Your task to perform on an android device: turn off location history Image 0: 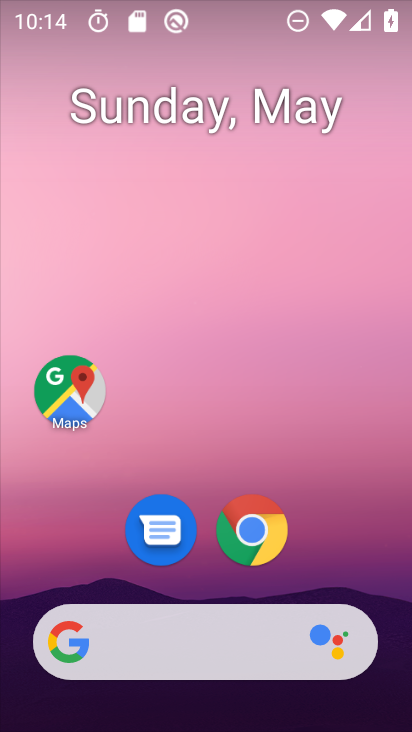
Step 0: drag from (262, 696) to (197, 112)
Your task to perform on an android device: turn off location history Image 1: 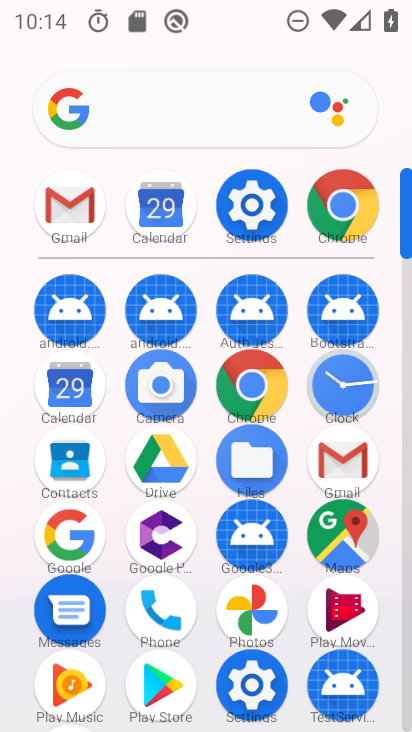
Step 1: click (260, 200)
Your task to perform on an android device: turn off location history Image 2: 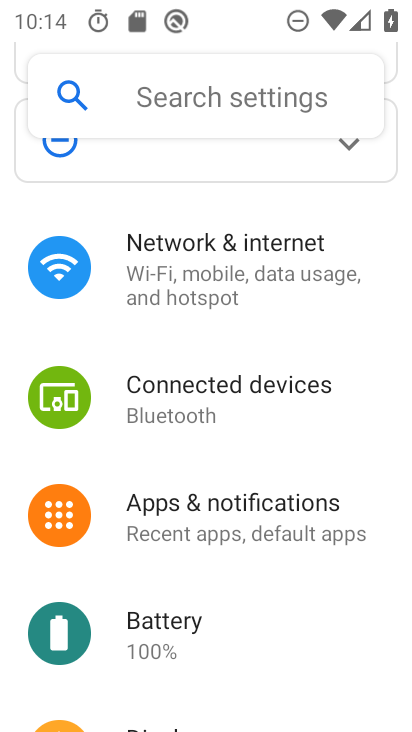
Step 2: click (184, 111)
Your task to perform on an android device: turn off location history Image 3: 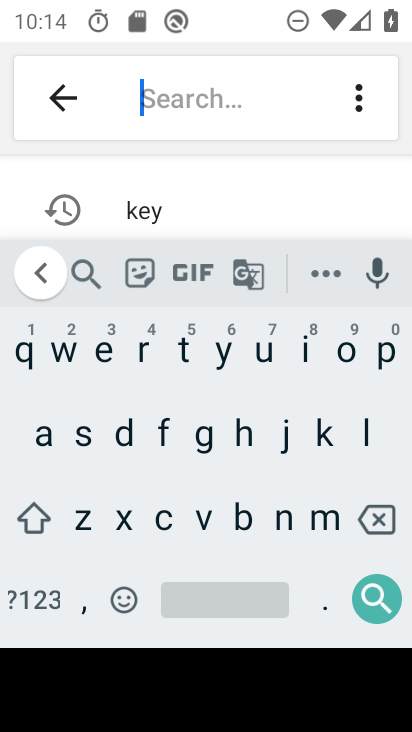
Step 3: click (360, 423)
Your task to perform on an android device: turn off location history Image 4: 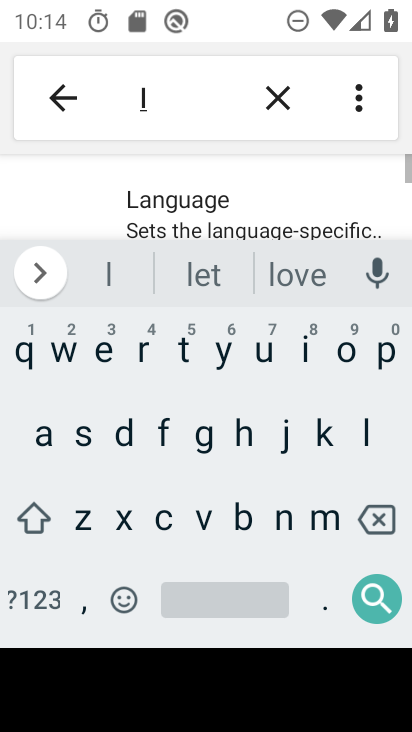
Step 4: click (343, 349)
Your task to perform on an android device: turn off location history Image 5: 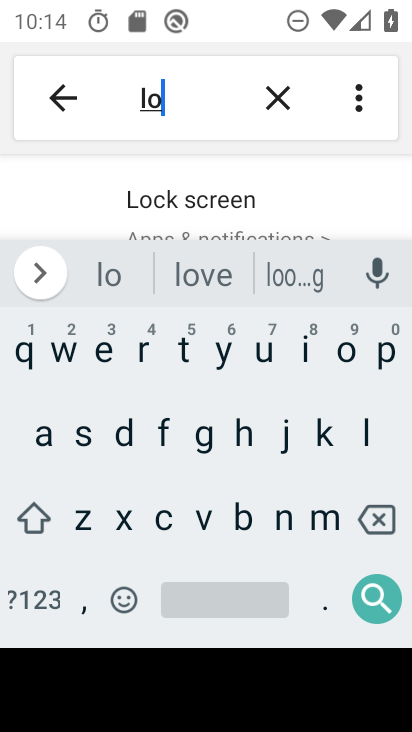
Step 5: press back button
Your task to perform on an android device: turn off location history Image 6: 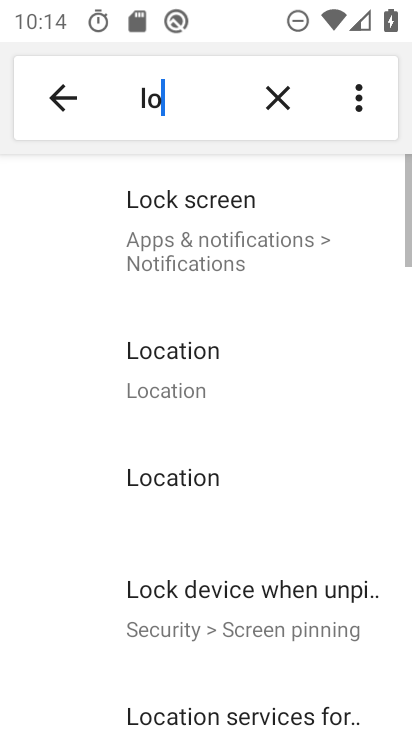
Step 6: click (175, 369)
Your task to perform on an android device: turn off location history Image 7: 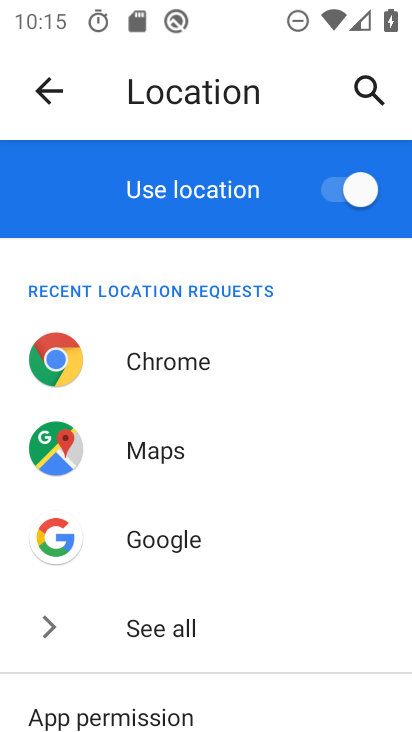
Step 7: drag from (240, 624) to (278, 124)
Your task to perform on an android device: turn off location history Image 8: 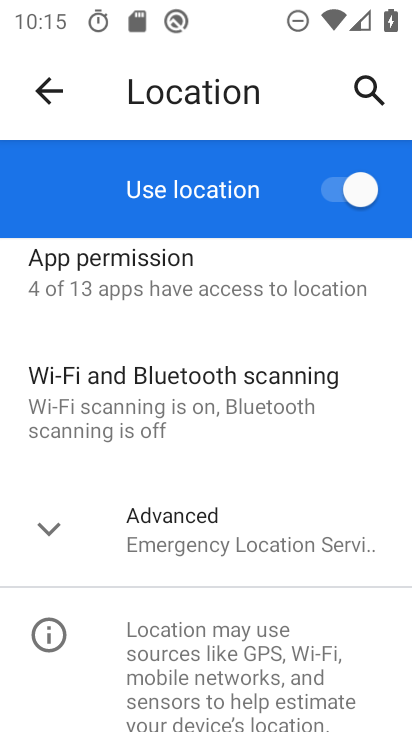
Step 8: click (141, 545)
Your task to perform on an android device: turn off location history Image 9: 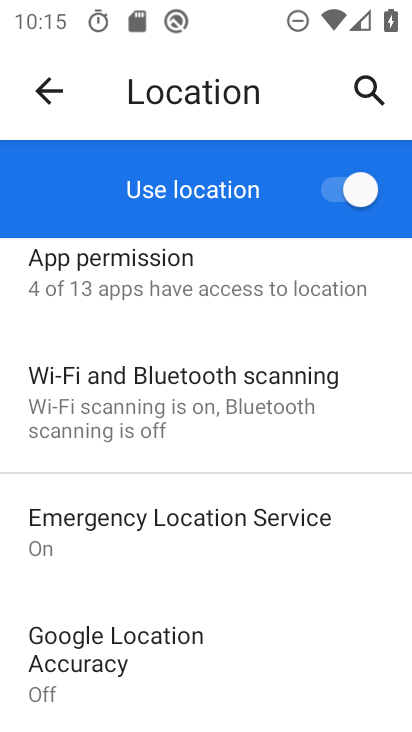
Step 9: drag from (184, 652) to (202, 359)
Your task to perform on an android device: turn off location history Image 10: 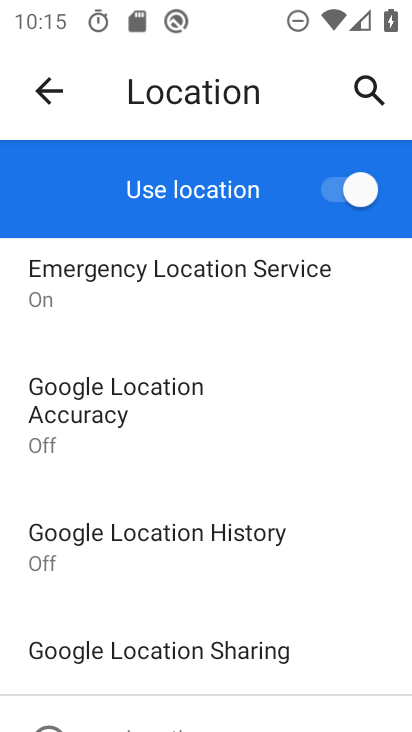
Step 10: click (177, 543)
Your task to perform on an android device: turn off location history Image 11: 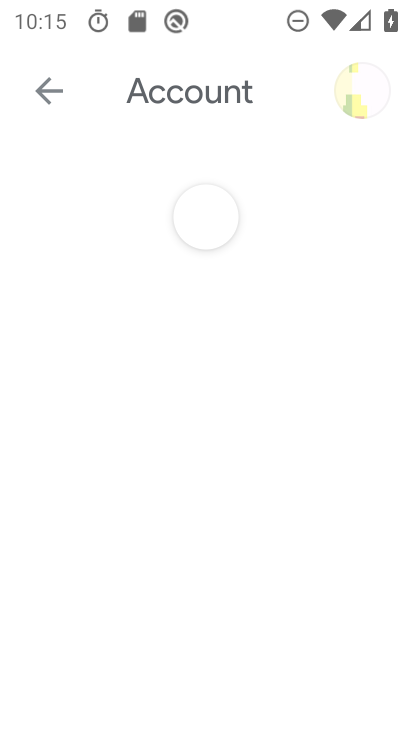
Step 11: task complete